Your task to perform on an android device: Open location settings Image 0: 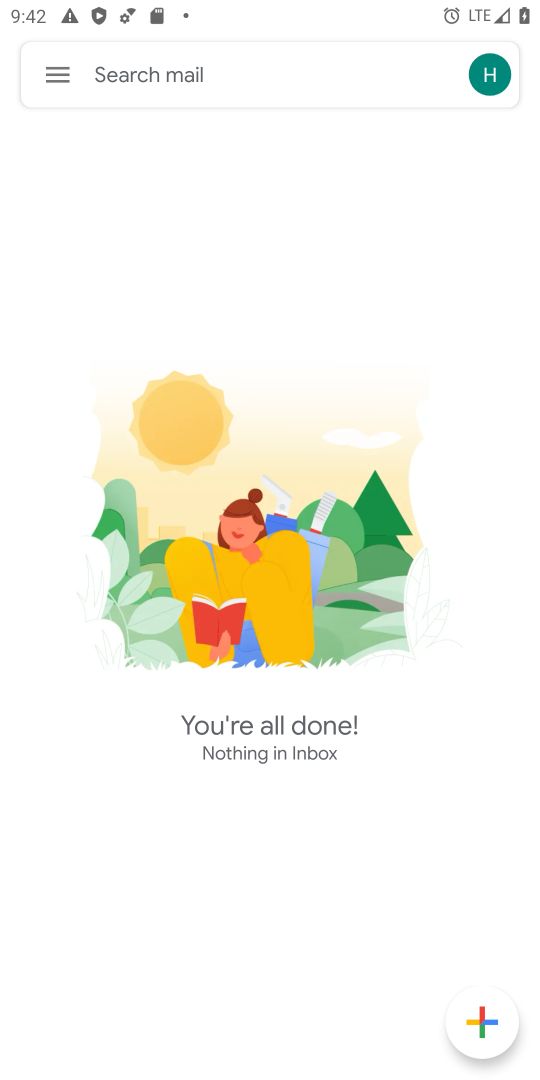
Step 0: press home button
Your task to perform on an android device: Open location settings Image 1: 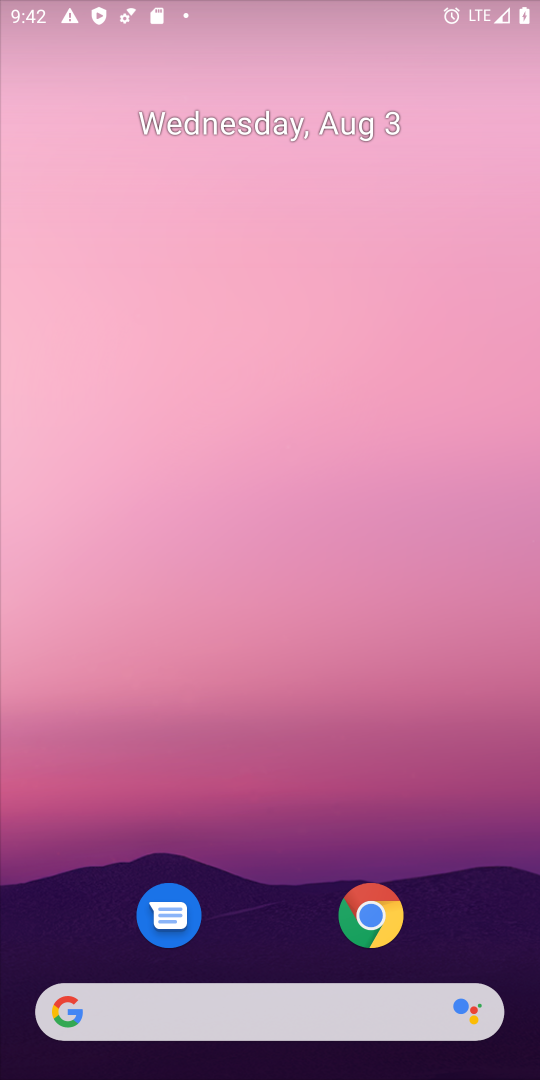
Step 1: drag from (215, 999) to (335, 451)
Your task to perform on an android device: Open location settings Image 2: 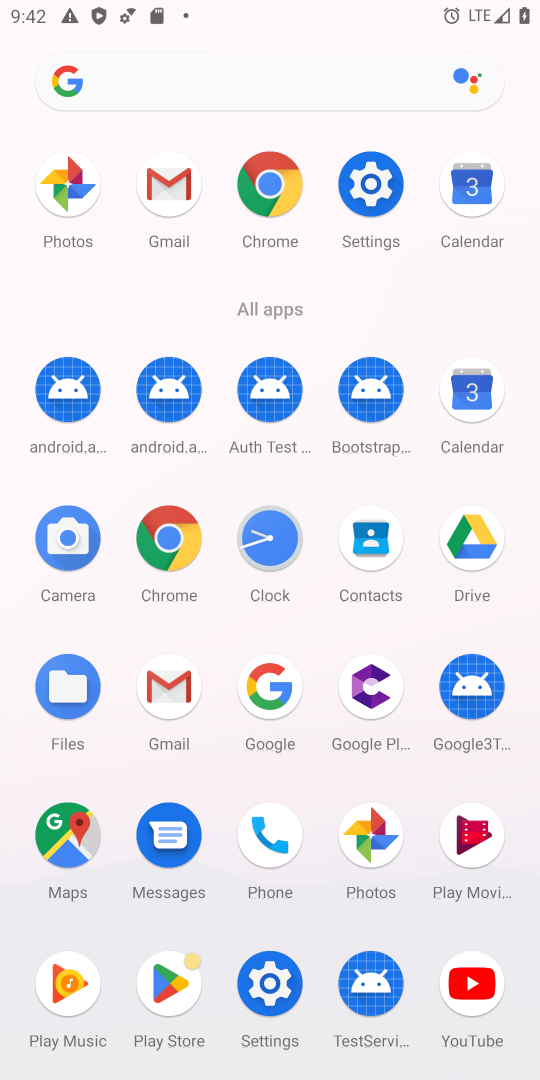
Step 2: click (364, 187)
Your task to perform on an android device: Open location settings Image 3: 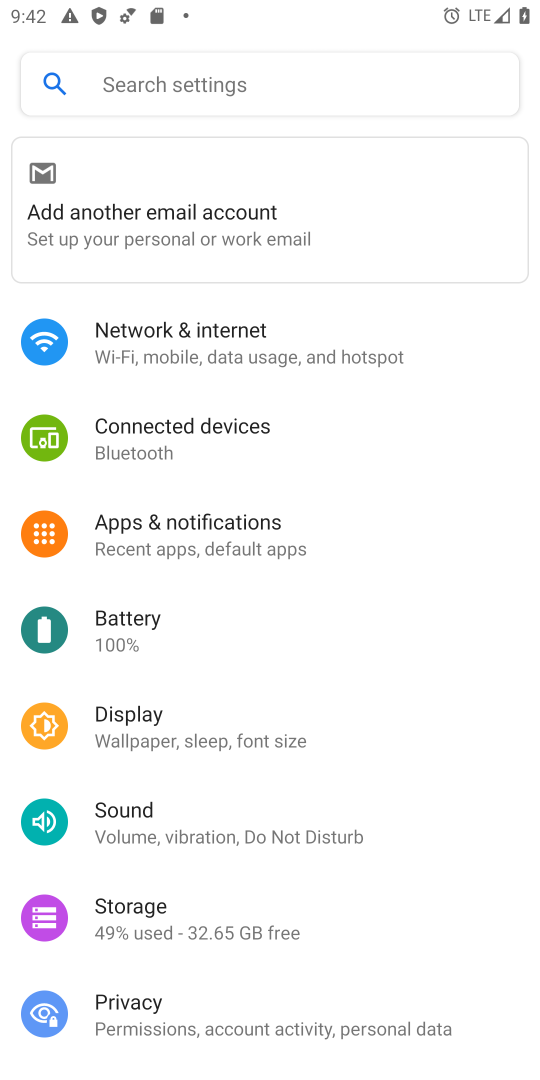
Step 3: drag from (142, 1020) to (270, 422)
Your task to perform on an android device: Open location settings Image 4: 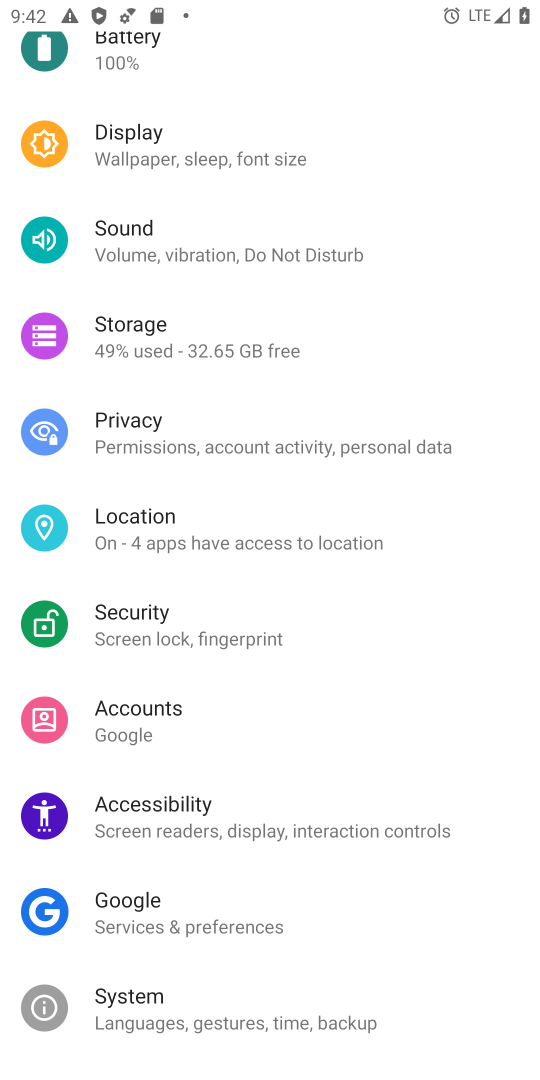
Step 4: click (170, 532)
Your task to perform on an android device: Open location settings Image 5: 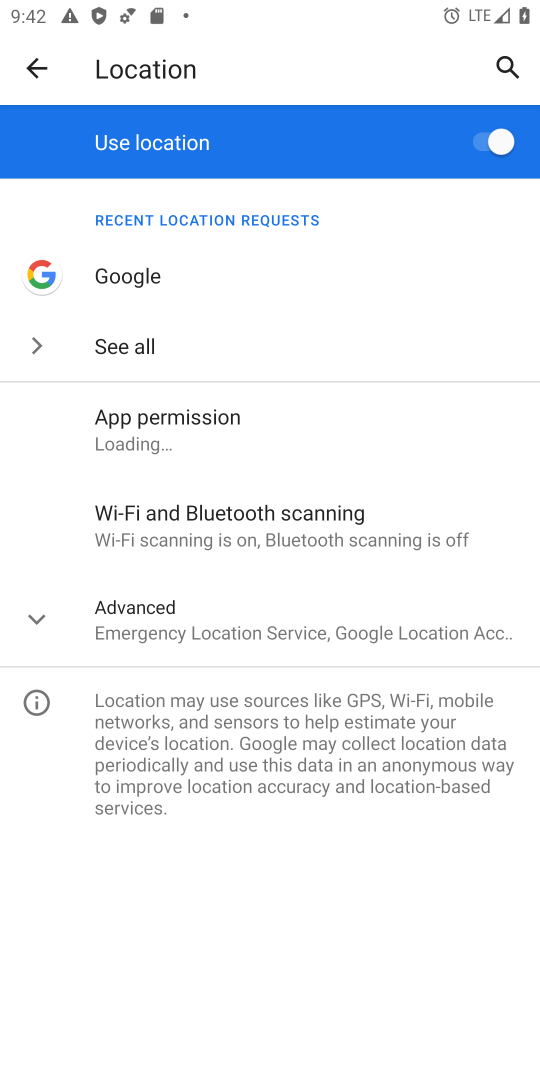
Step 5: click (168, 638)
Your task to perform on an android device: Open location settings Image 6: 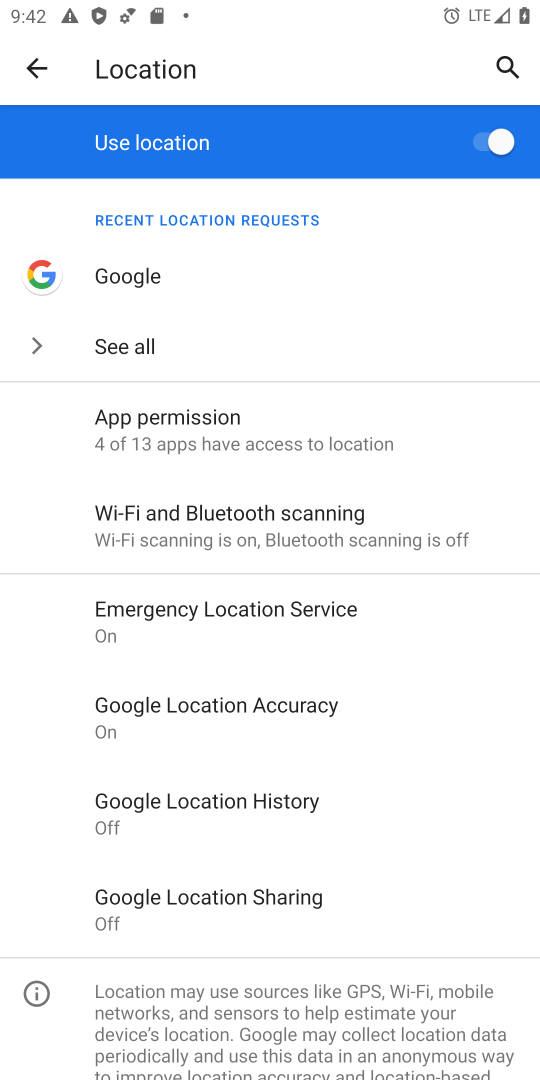
Step 6: task complete